Your task to perform on an android device: Open accessibility settings Image 0: 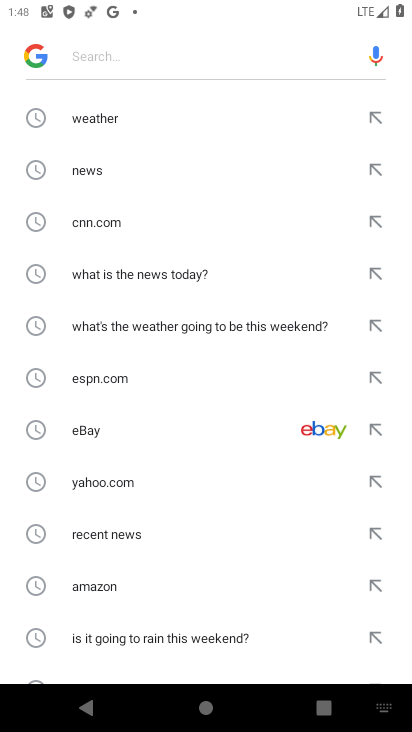
Step 0: press home button
Your task to perform on an android device: Open accessibility settings Image 1: 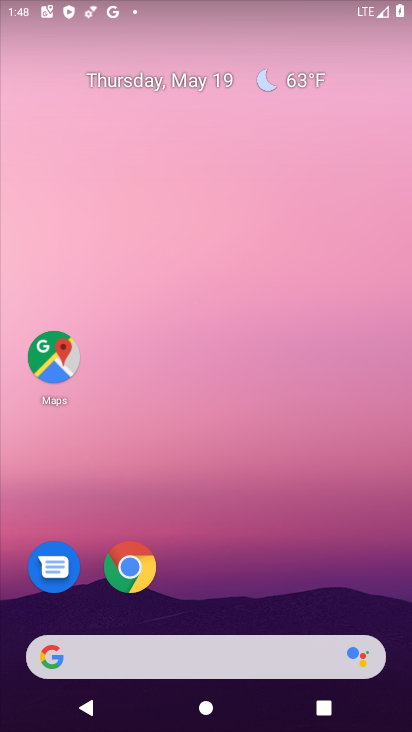
Step 1: drag from (312, 470) to (289, 45)
Your task to perform on an android device: Open accessibility settings Image 2: 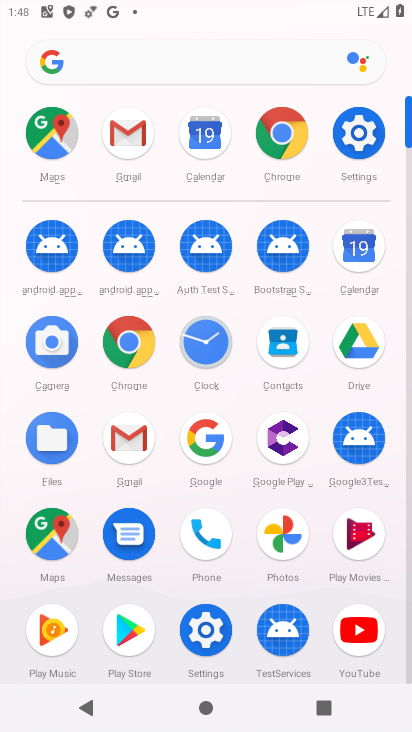
Step 2: click (388, 147)
Your task to perform on an android device: Open accessibility settings Image 3: 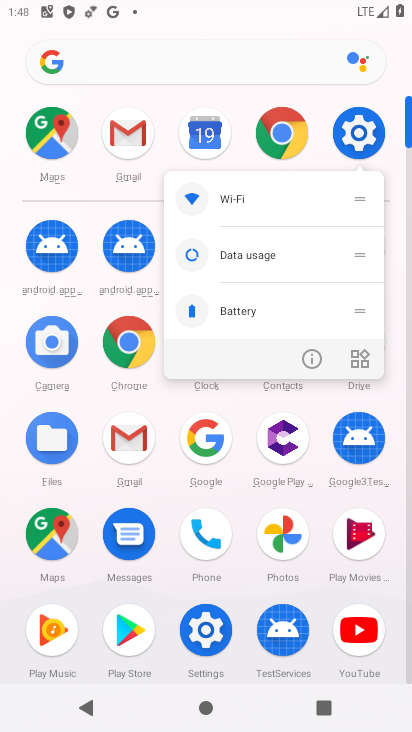
Step 3: click (359, 132)
Your task to perform on an android device: Open accessibility settings Image 4: 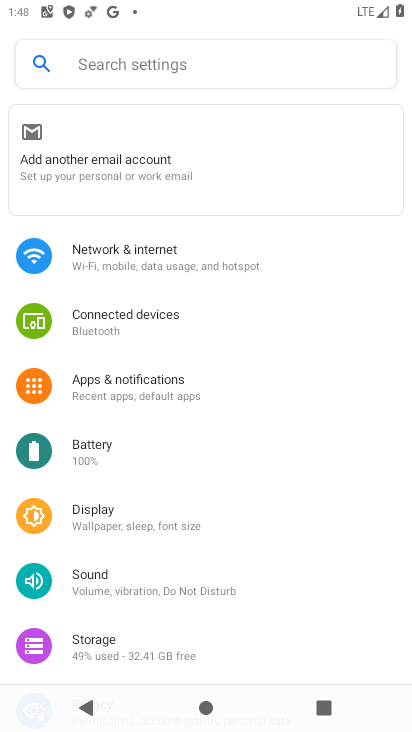
Step 4: drag from (209, 583) to (165, 233)
Your task to perform on an android device: Open accessibility settings Image 5: 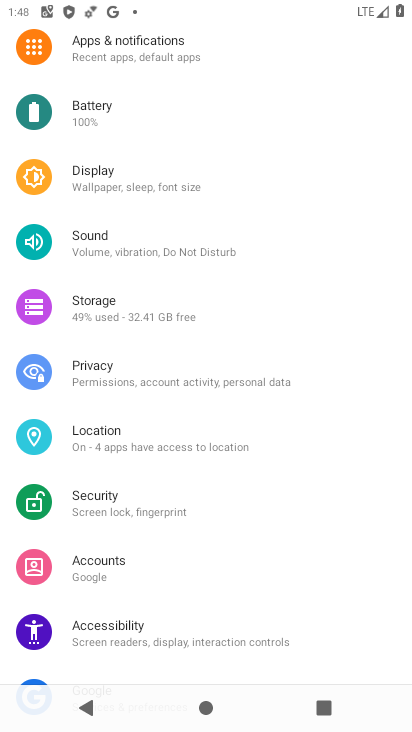
Step 5: drag from (181, 285) to (141, 157)
Your task to perform on an android device: Open accessibility settings Image 6: 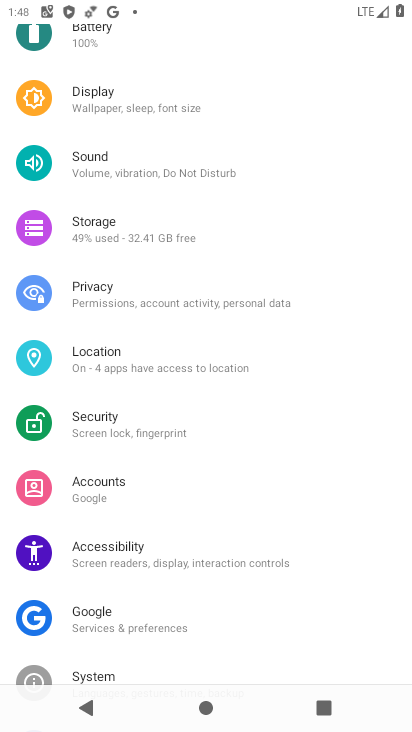
Step 6: click (78, 547)
Your task to perform on an android device: Open accessibility settings Image 7: 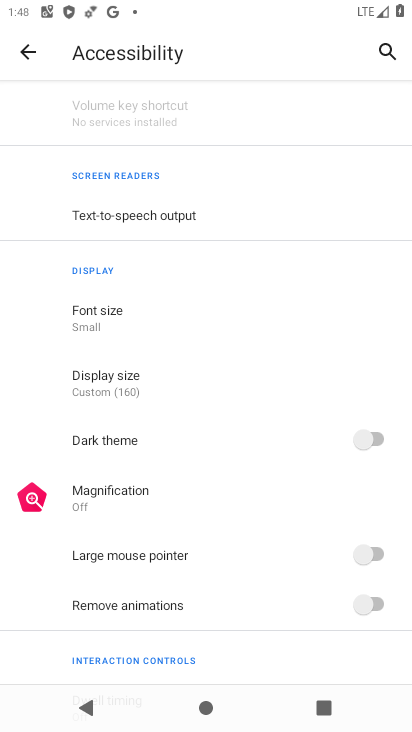
Step 7: task complete